Your task to perform on an android device: delete the emails in spam in the gmail app Image 0: 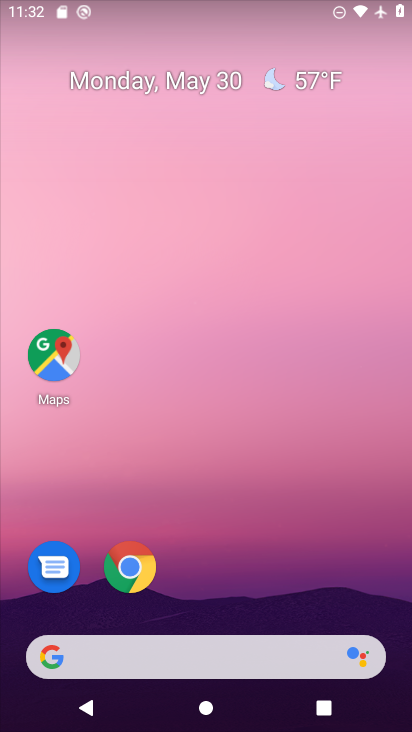
Step 0: drag from (179, 605) to (179, 217)
Your task to perform on an android device: delete the emails in spam in the gmail app Image 1: 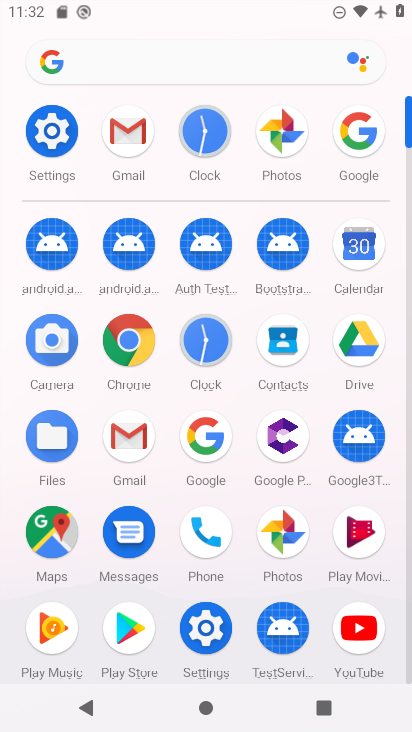
Step 1: click (123, 153)
Your task to perform on an android device: delete the emails in spam in the gmail app Image 2: 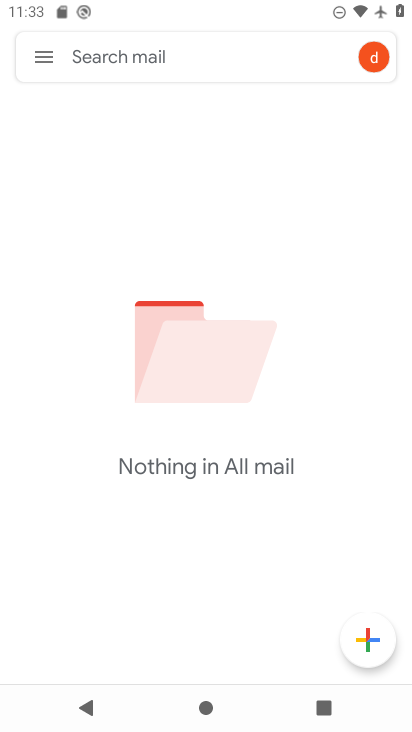
Step 2: click (41, 61)
Your task to perform on an android device: delete the emails in spam in the gmail app Image 3: 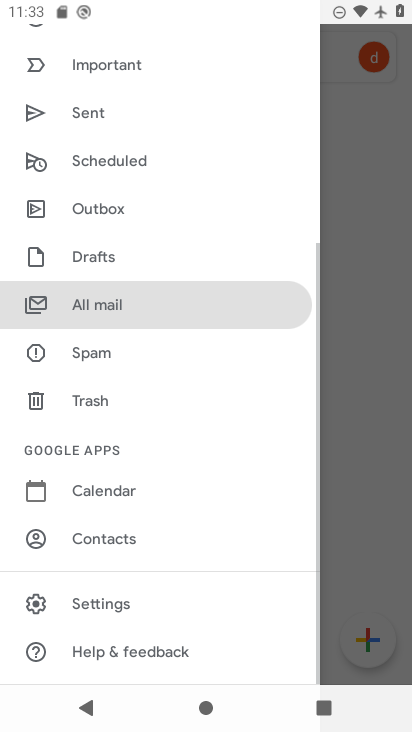
Step 3: click (135, 341)
Your task to perform on an android device: delete the emails in spam in the gmail app Image 4: 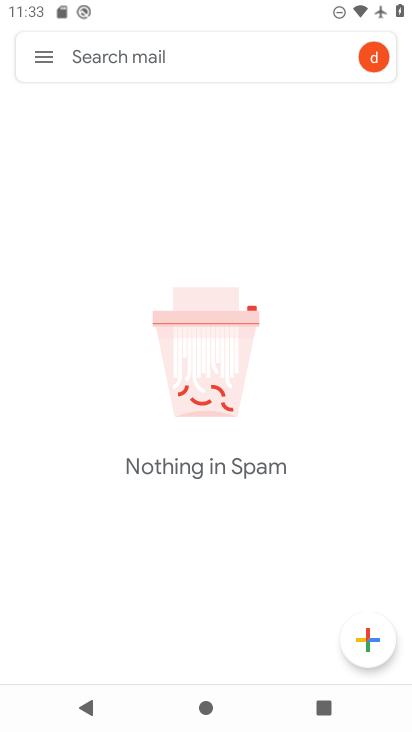
Step 4: task complete